Your task to perform on an android device: turn on the 24-hour format for clock Image 0: 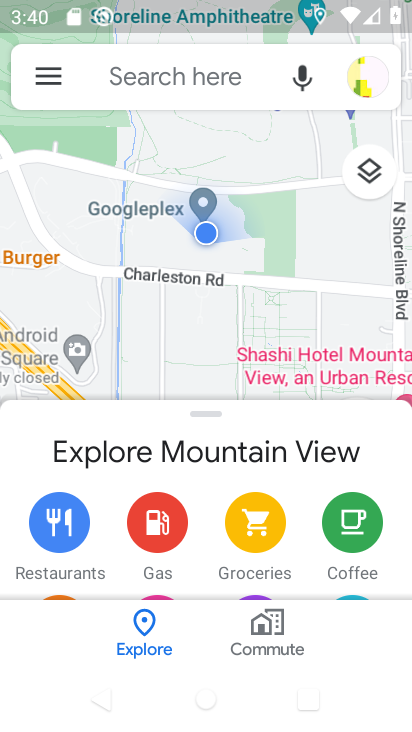
Step 0: press home button
Your task to perform on an android device: turn on the 24-hour format for clock Image 1: 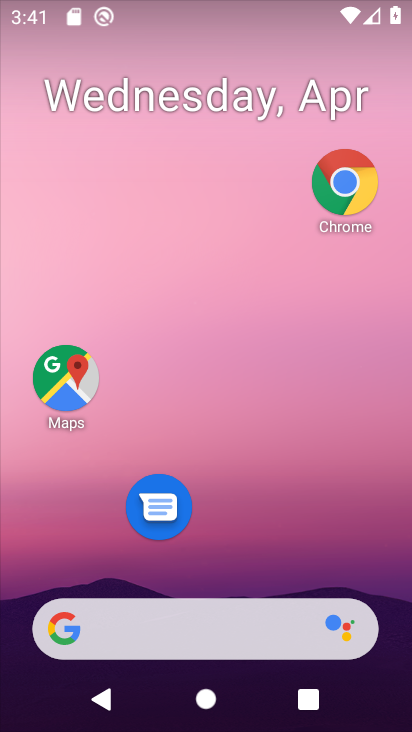
Step 1: drag from (256, 522) to (251, 195)
Your task to perform on an android device: turn on the 24-hour format for clock Image 2: 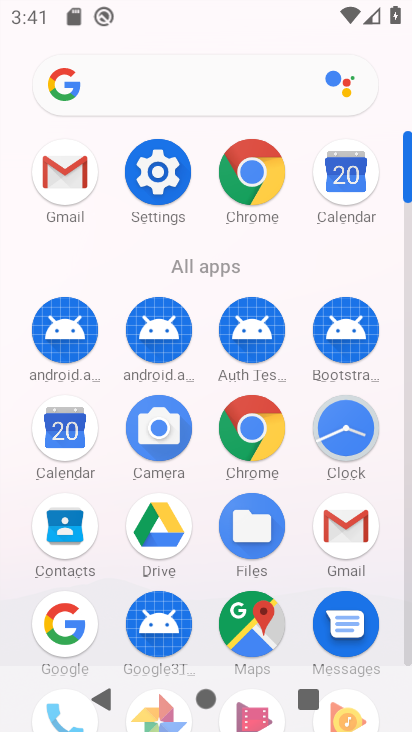
Step 2: click (154, 191)
Your task to perform on an android device: turn on the 24-hour format for clock Image 3: 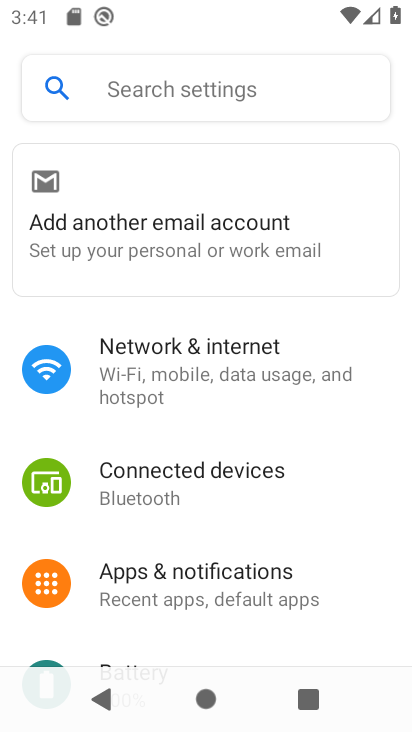
Step 3: drag from (179, 498) to (258, 114)
Your task to perform on an android device: turn on the 24-hour format for clock Image 4: 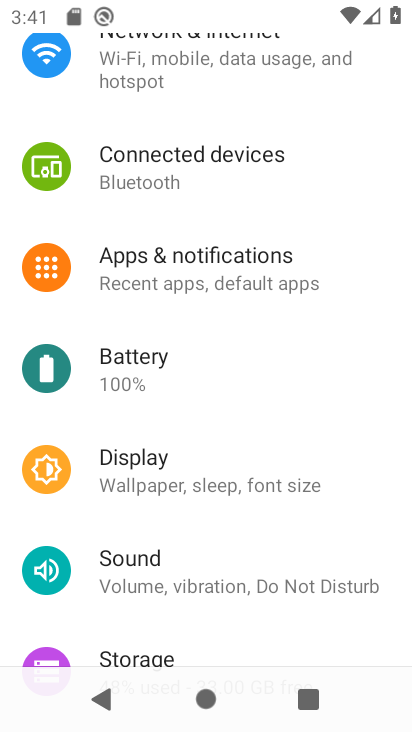
Step 4: drag from (179, 601) to (237, 182)
Your task to perform on an android device: turn on the 24-hour format for clock Image 5: 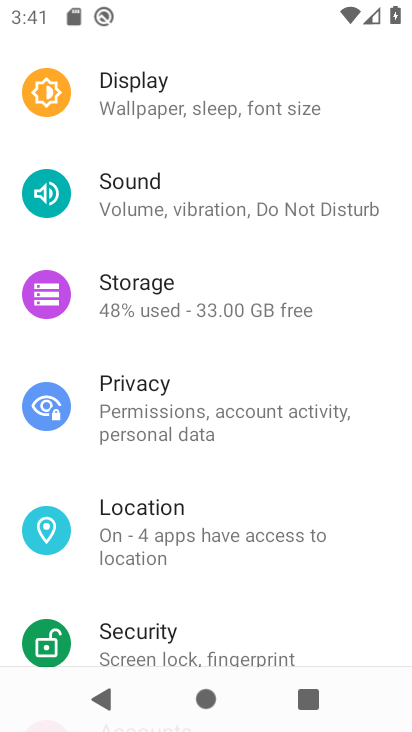
Step 5: drag from (218, 199) to (255, 104)
Your task to perform on an android device: turn on the 24-hour format for clock Image 6: 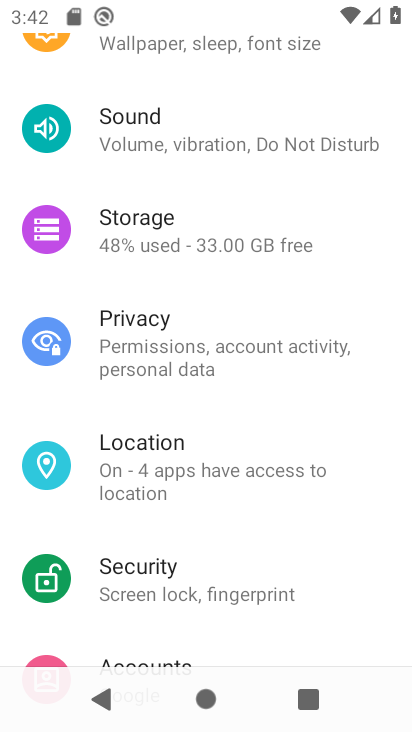
Step 6: drag from (195, 569) to (295, 176)
Your task to perform on an android device: turn on the 24-hour format for clock Image 7: 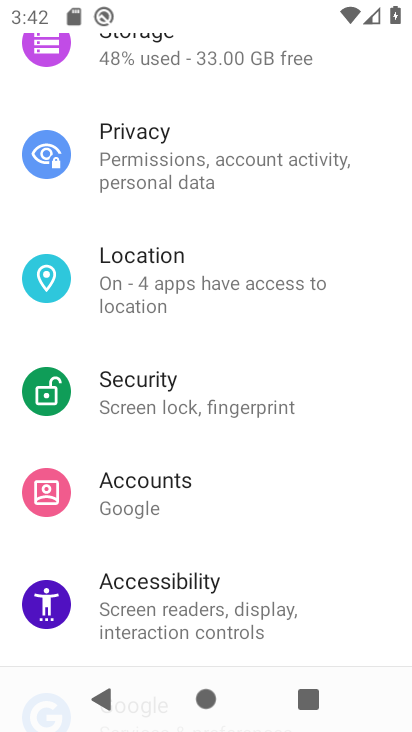
Step 7: drag from (183, 531) to (273, 79)
Your task to perform on an android device: turn on the 24-hour format for clock Image 8: 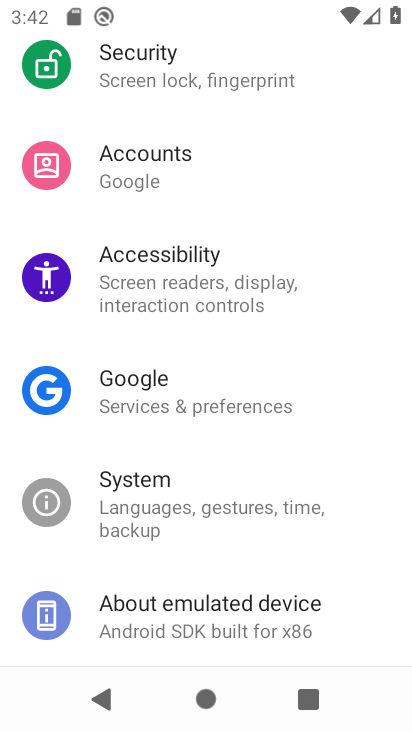
Step 8: drag from (159, 564) to (207, 229)
Your task to perform on an android device: turn on the 24-hour format for clock Image 9: 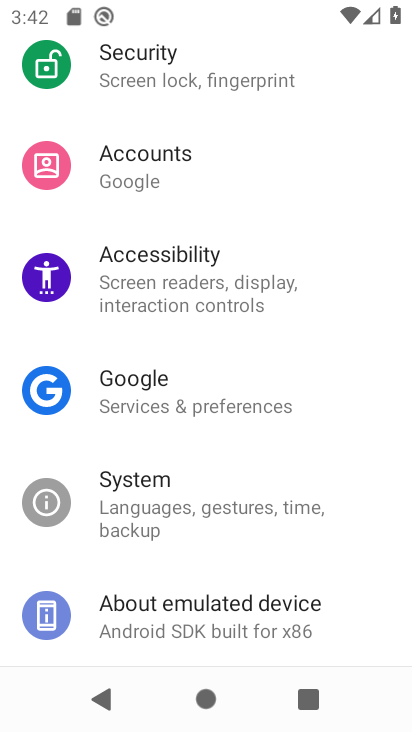
Step 9: click (154, 506)
Your task to perform on an android device: turn on the 24-hour format for clock Image 10: 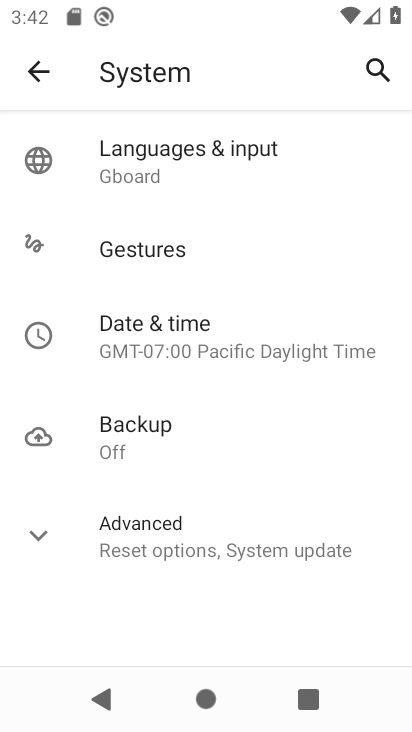
Step 10: click (190, 332)
Your task to perform on an android device: turn on the 24-hour format for clock Image 11: 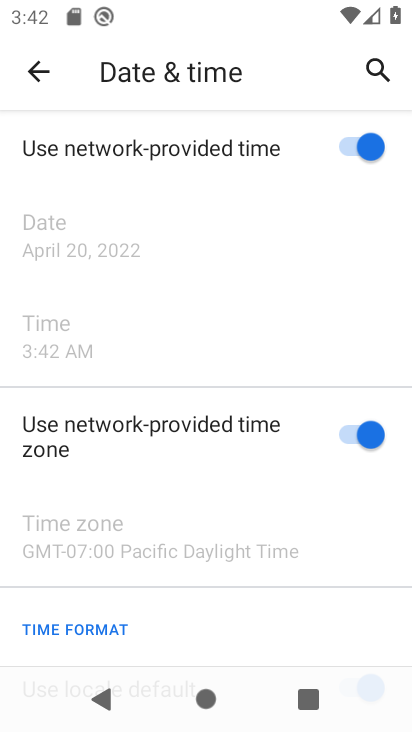
Step 11: drag from (154, 547) to (221, 196)
Your task to perform on an android device: turn on the 24-hour format for clock Image 12: 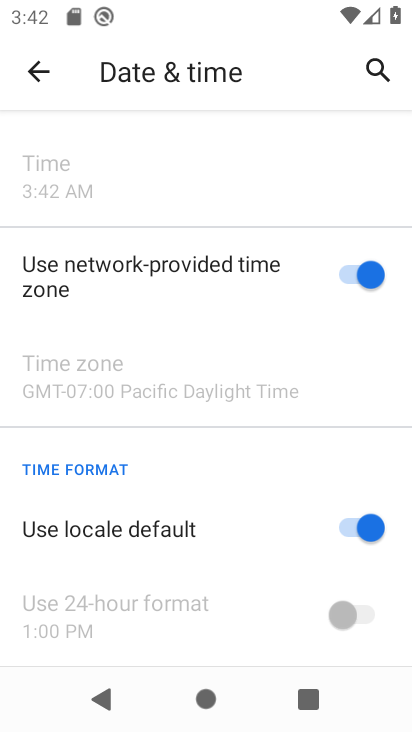
Step 12: click (347, 543)
Your task to perform on an android device: turn on the 24-hour format for clock Image 13: 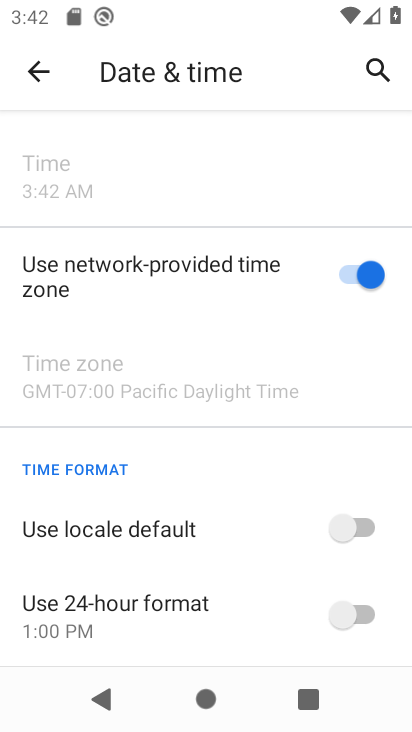
Step 13: click (368, 612)
Your task to perform on an android device: turn on the 24-hour format for clock Image 14: 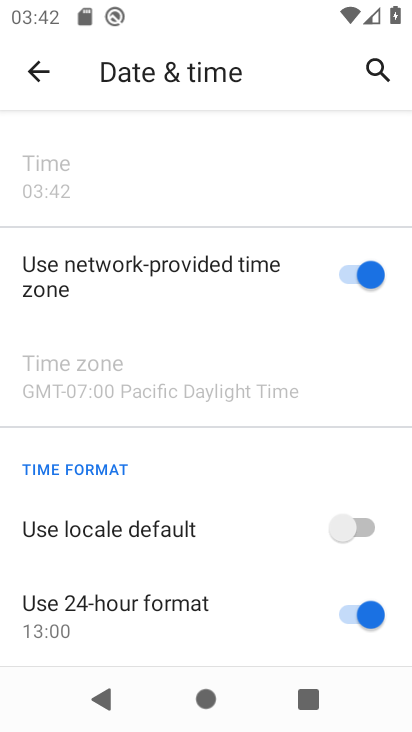
Step 14: task complete